Your task to perform on an android device: What's on my calendar today? Image 0: 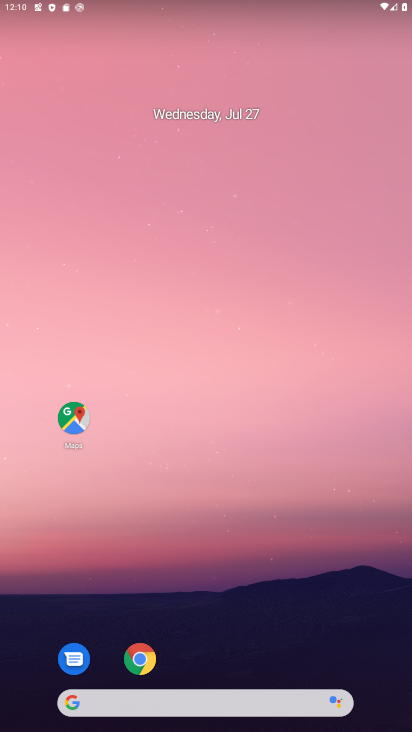
Step 0: drag from (260, 629) to (332, 215)
Your task to perform on an android device: What's on my calendar today? Image 1: 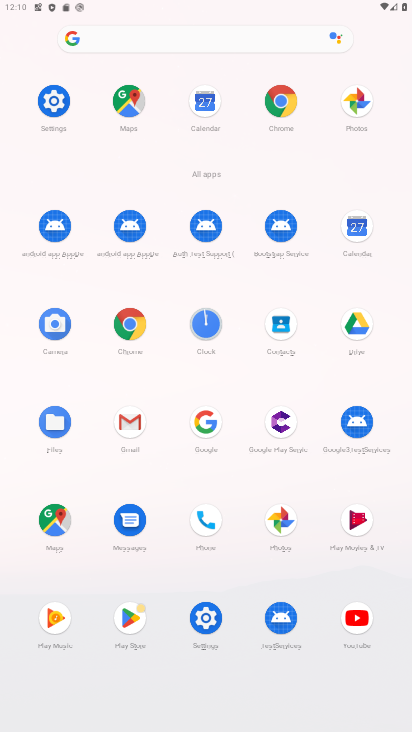
Step 1: click (367, 228)
Your task to perform on an android device: What's on my calendar today? Image 2: 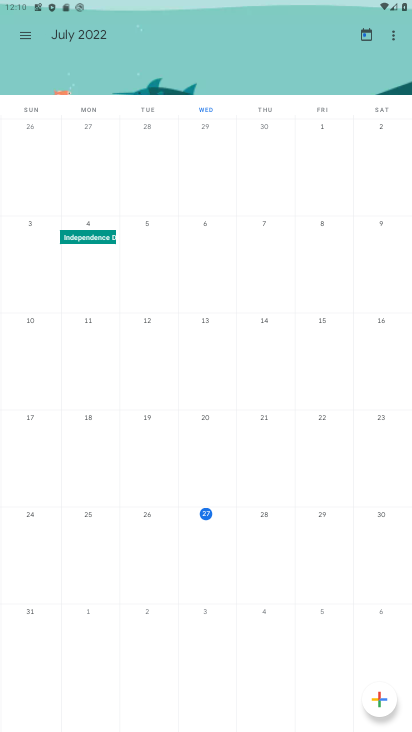
Step 2: task complete